Your task to perform on an android device: Open wifi settings Image 0: 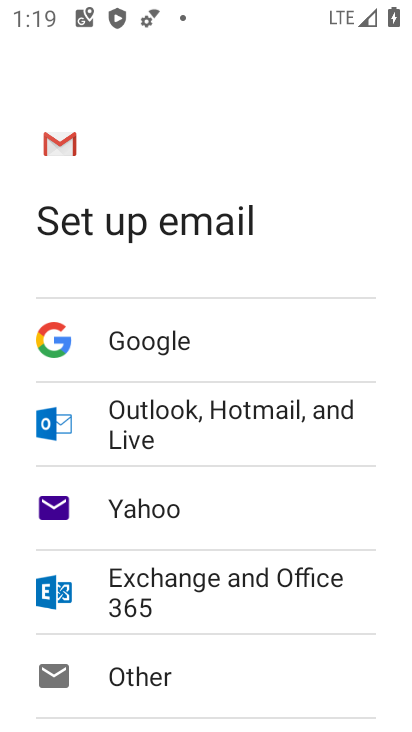
Step 0: press home button
Your task to perform on an android device: Open wifi settings Image 1: 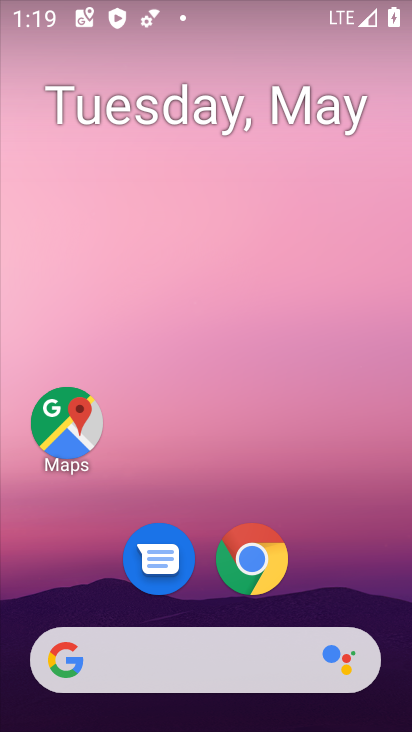
Step 1: drag from (294, 383) to (251, 56)
Your task to perform on an android device: Open wifi settings Image 2: 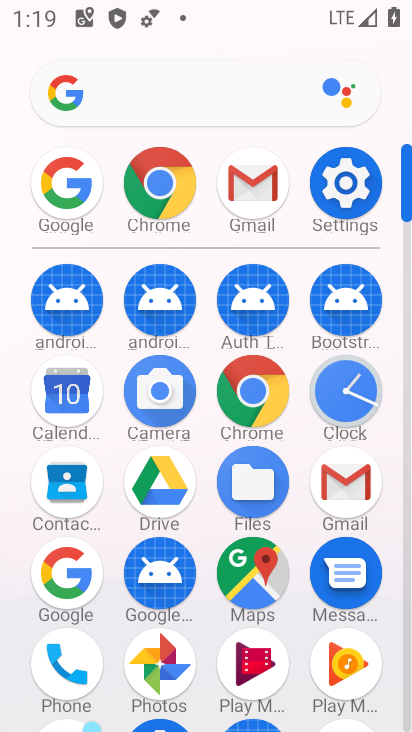
Step 2: click (338, 198)
Your task to perform on an android device: Open wifi settings Image 3: 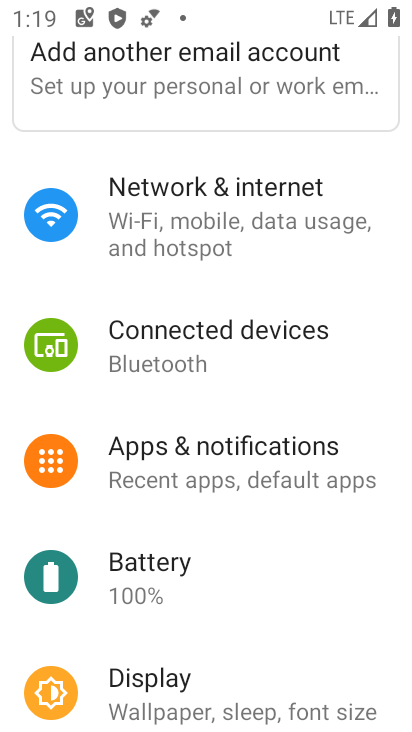
Step 3: click (216, 201)
Your task to perform on an android device: Open wifi settings Image 4: 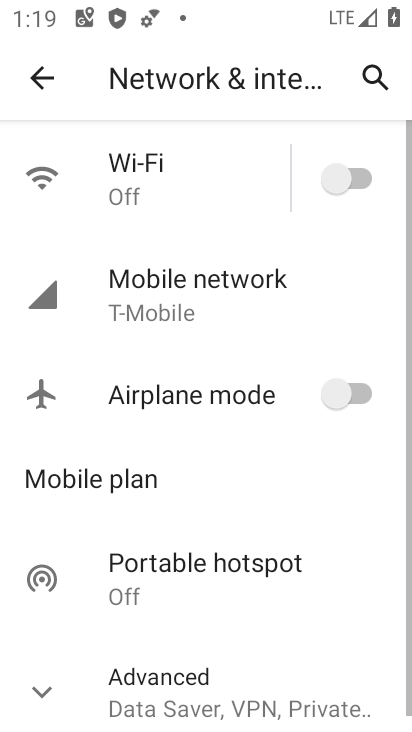
Step 4: click (149, 185)
Your task to perform on an android device: Open wifi settings Image 5: 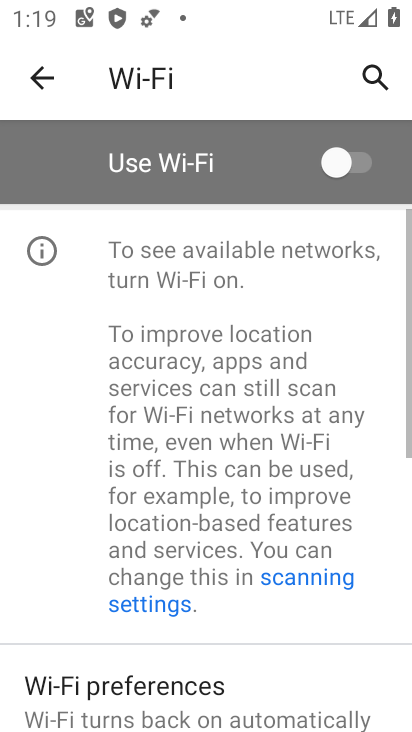
Step 5: task complete